Your task to perform on an android device: What's the news in Thailand? Image 0: 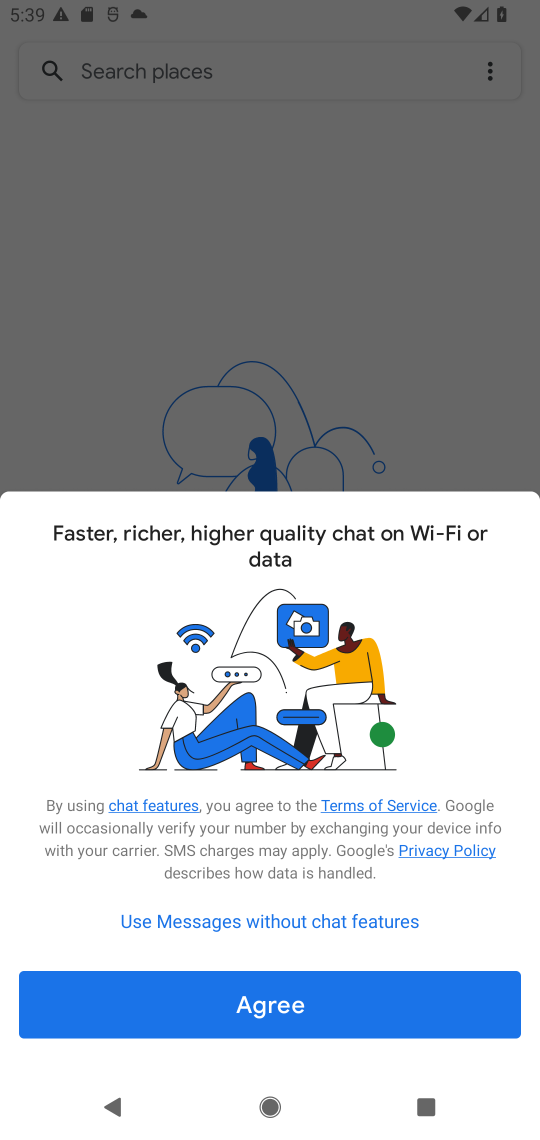
Step 0: press home button
Your task to perform on an android device: What's the news in Thailand? Image 1: 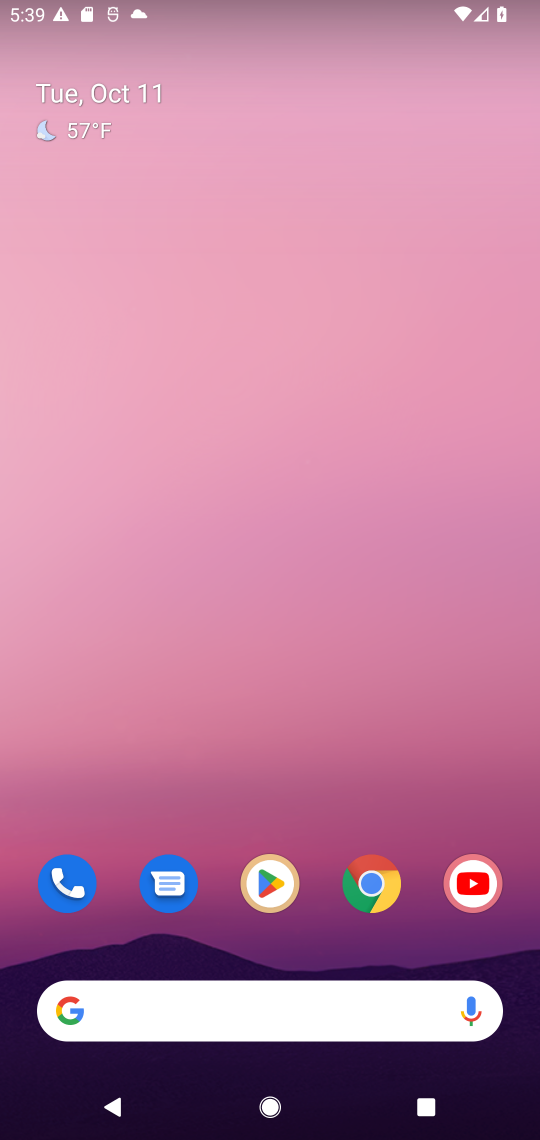
Step 1: drag from (316, 926) to (389, 59)
Your task to perform on an android device: What's the news in Thailand? Image 2: 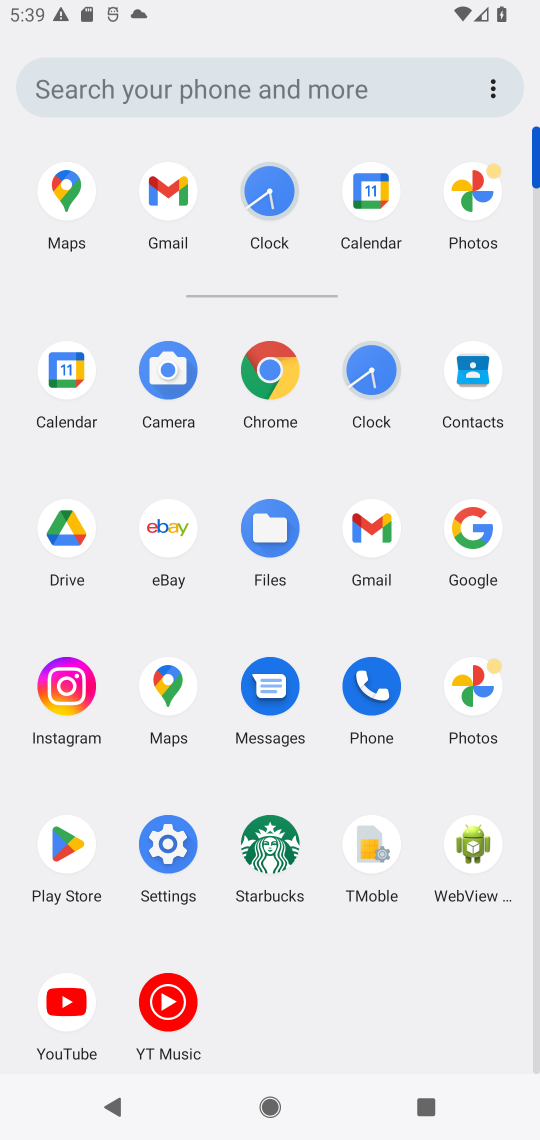
Step 2: click (265, 380)
Your task to perform on an android device: What's the news in Thailand? Image 3: 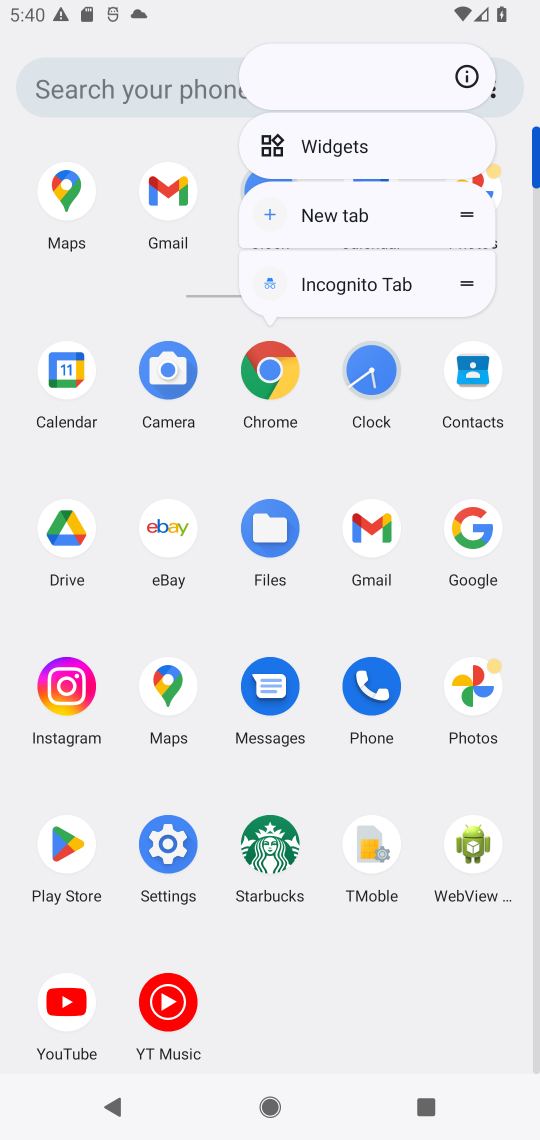
Step 3: click (262, 370)
Your task to perform on an android device: What's the news in Thailand? Image 4: 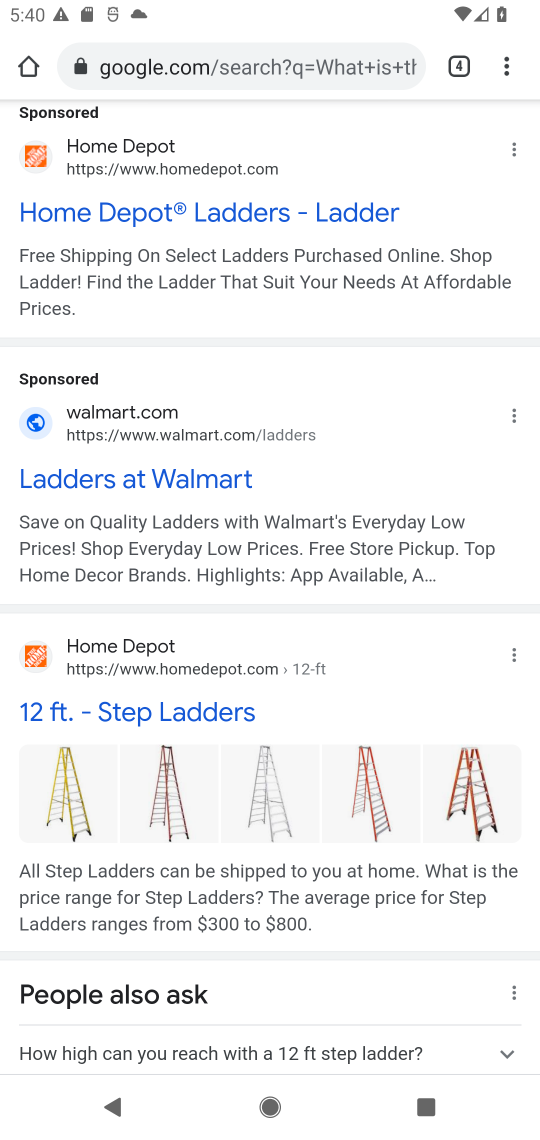
Step 4: click (279, 71)
Your task to perform on an android device: What's the news in Thailand? Image 5: 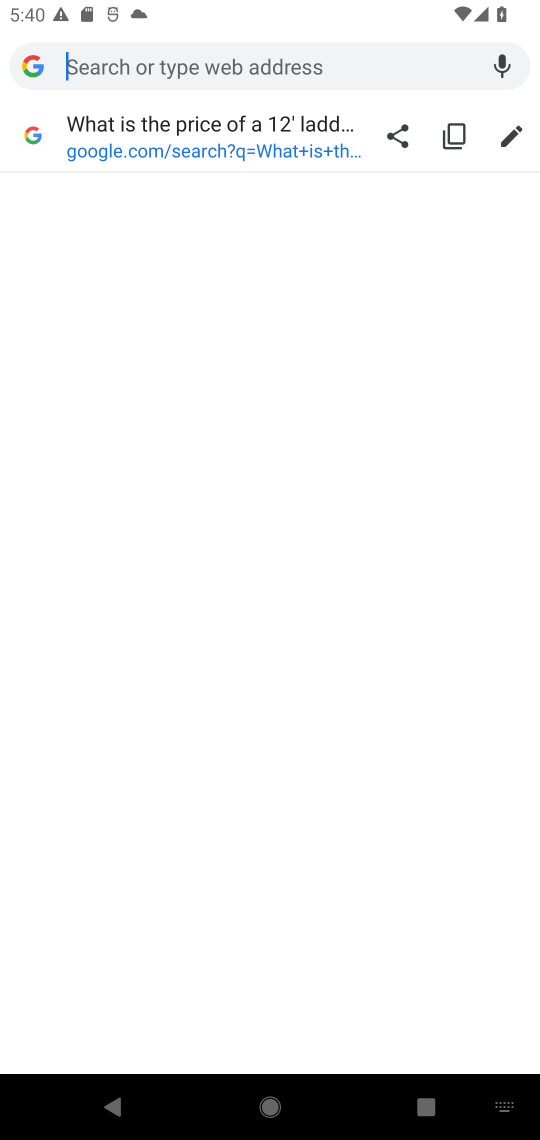
Step 5: type "What's the news in Thailand?"
Your task to perform on an android device: What's the news in Thailand? Image 6: 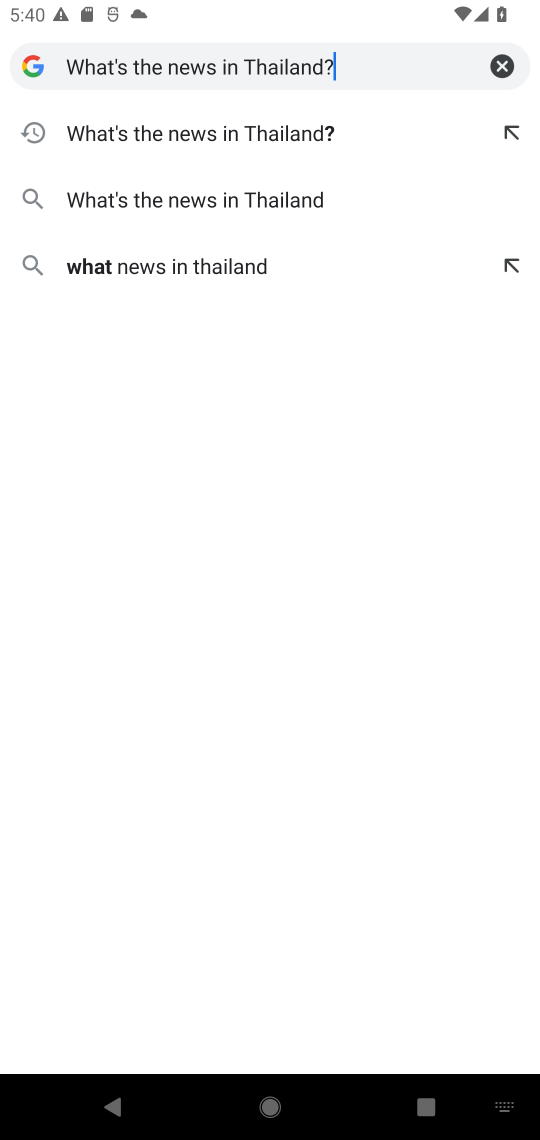
Step 6: press enter
Your task to perform on an android device: What's the news in Thailand? Image 7: 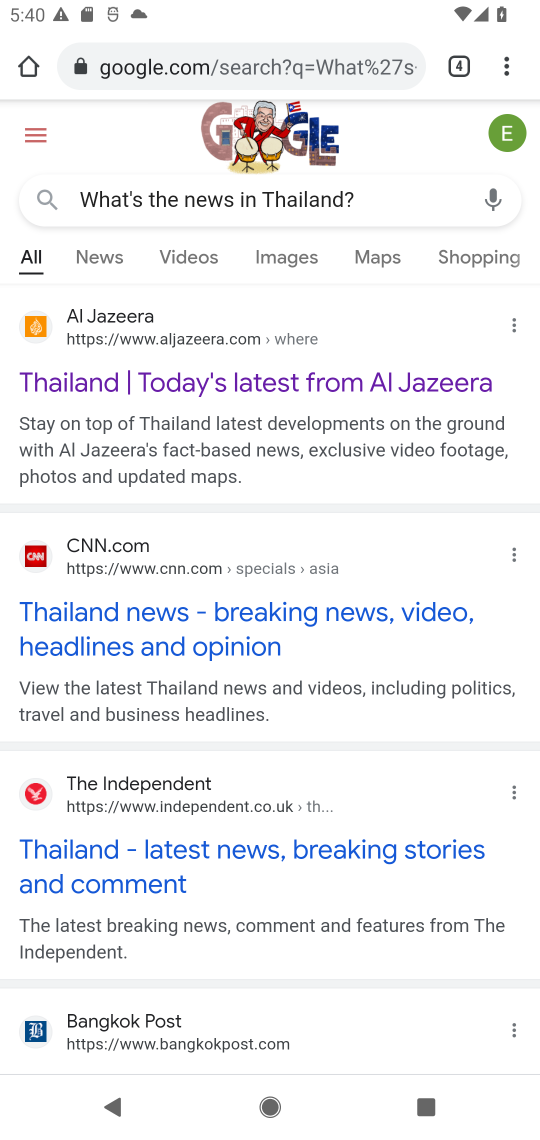
Step 7: click (396, 378)
Your task to perform on an android device: What's the news in Thailand? Image 8: 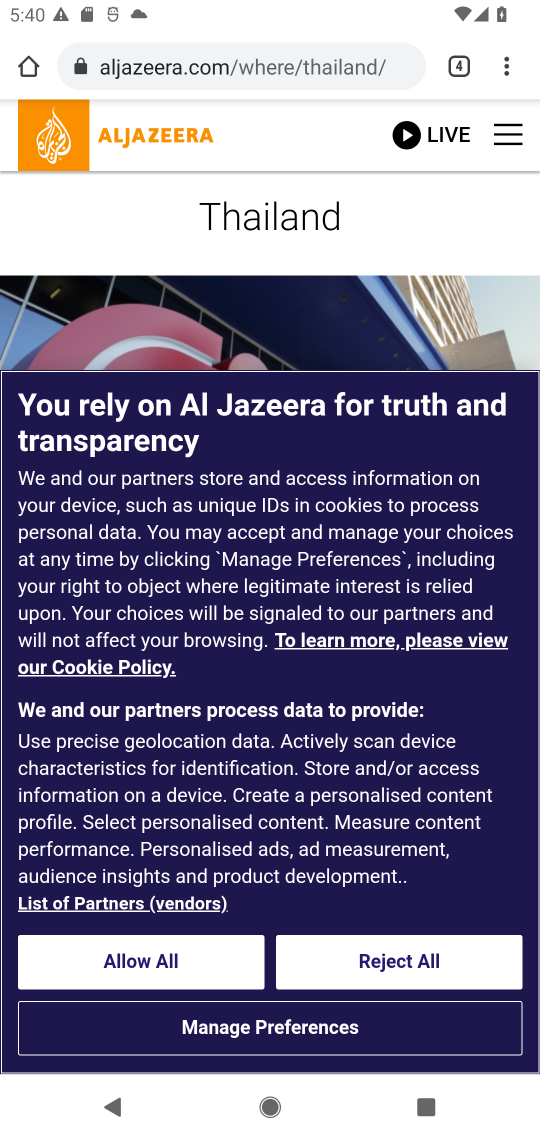
Step 8: click (208, 956)
Your task to perform on an android device: What's the news in Thailand? Image 9: 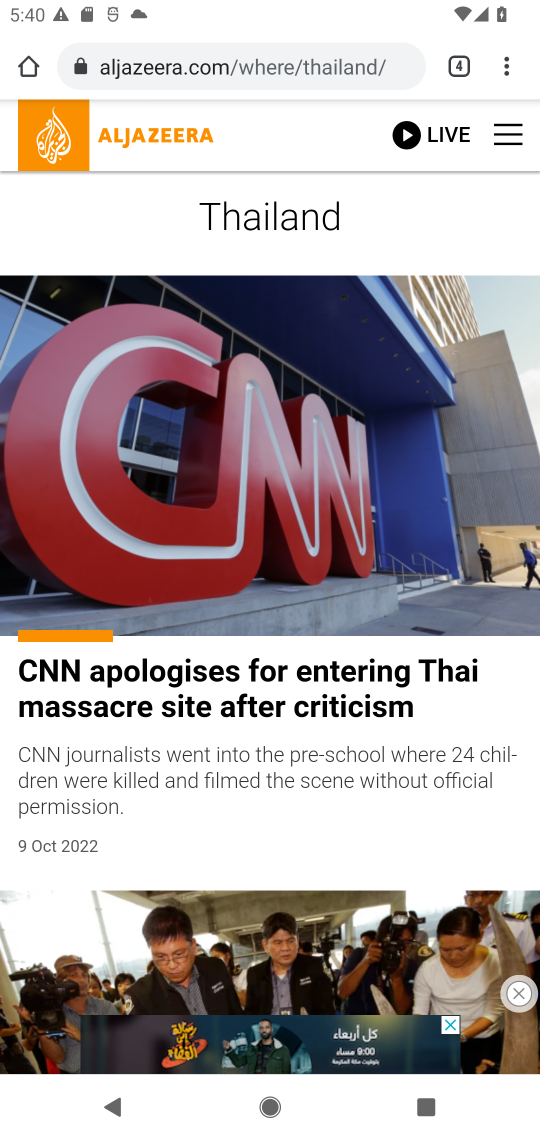
Step 9: task complete